Your task to perform on an android device: empty trash in the gmail app Image 0: 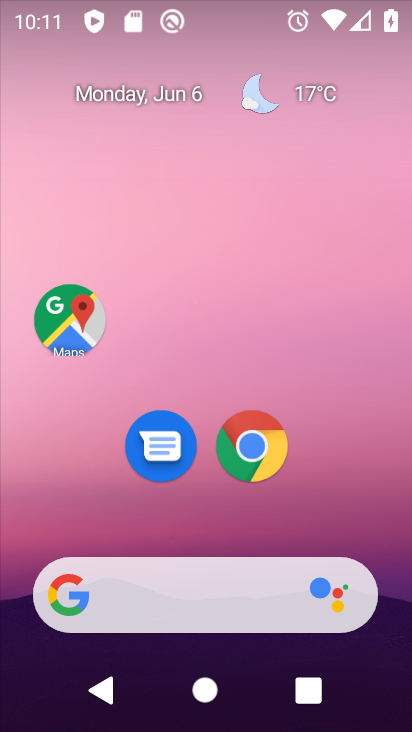
Step 0: drag from (192, 542) to (188, 44)
Your task to perform on an android device: empty trash in the gmail app Image 1: 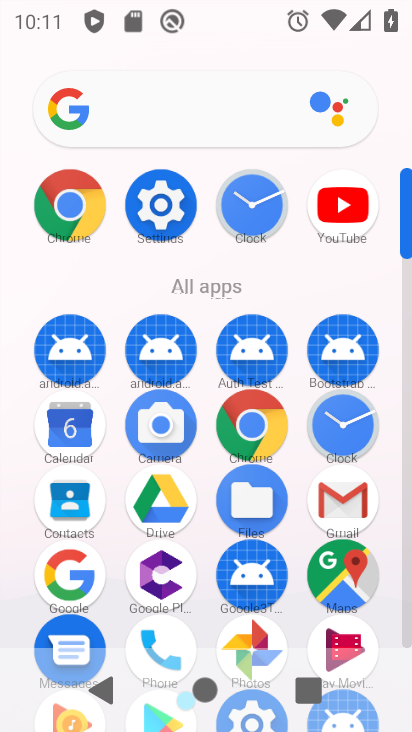
Step 1: click (346, 487)
Your task to perform on an android device: empty trash in the gmail app Image 2: 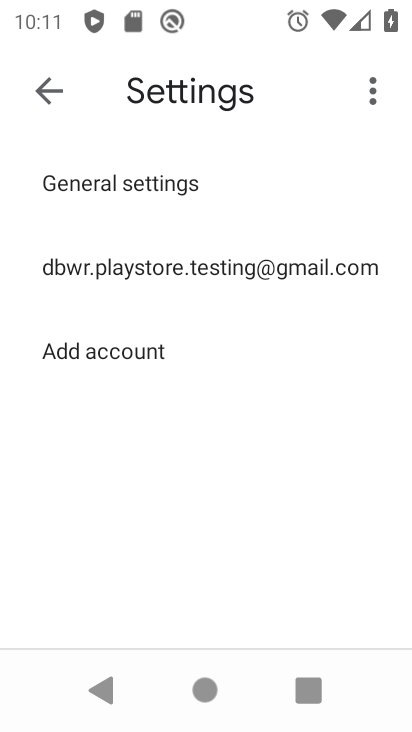
Step 2: click (57, 93)
Your task to perform on an android device: empty trash in the gmail app Image 3: 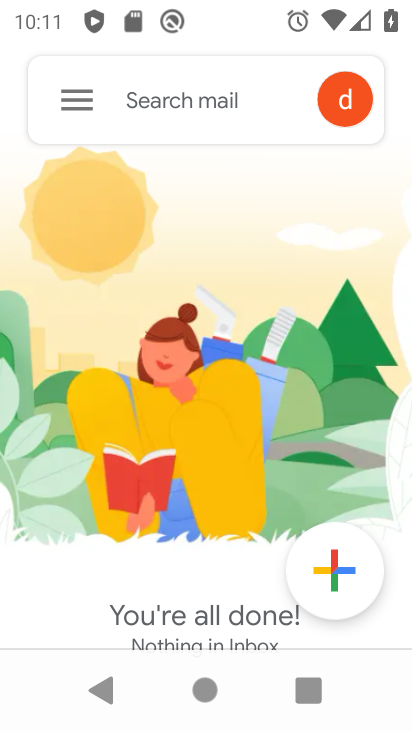
Step 3: click (58, 102)
Your task to perform on an android device: empty trash in the gmail app Image 4: 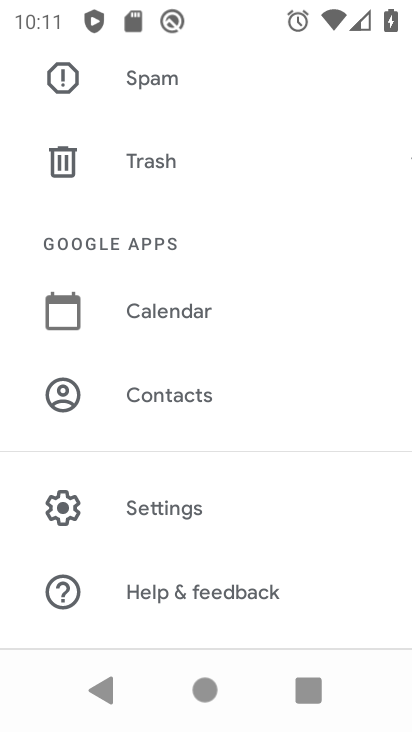
Step 4: click (169, 153)
Your task to perform on an android device: empty trash in the gmail app Image 5: 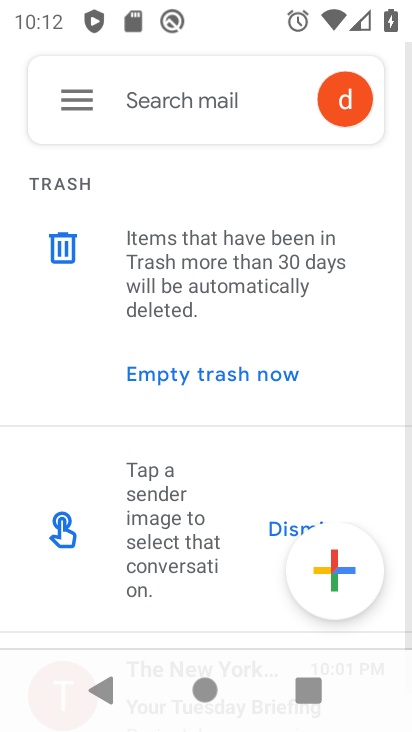
Step 5: click (216, 379)
Your task to perform on an android device: empty trash in the gmail app Image 6: 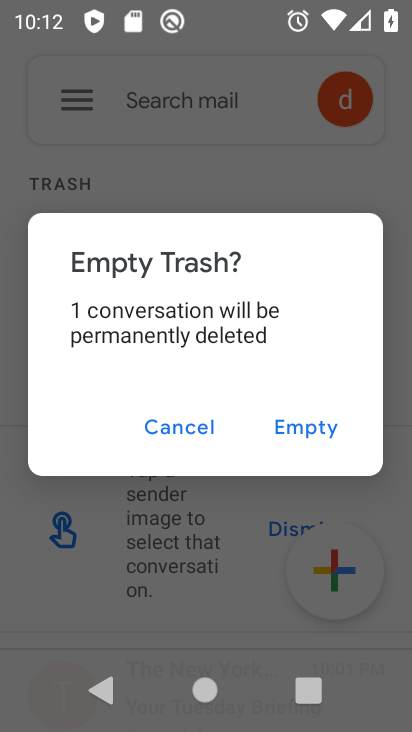
Step 6: click (302, 443)
Your task to perform on an android device: empty trash in the gmail app Image 7: 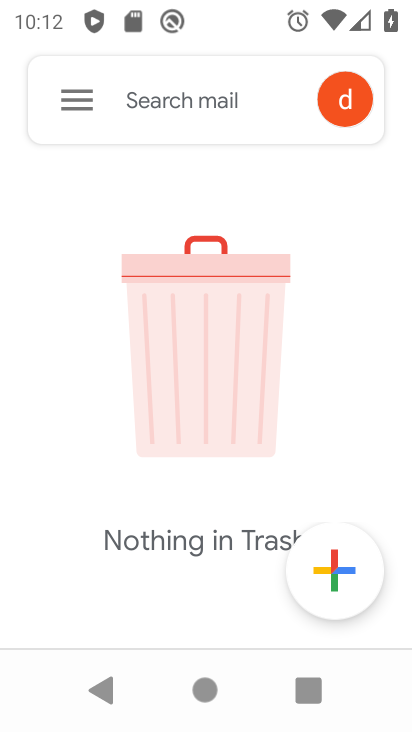
Step 7: task complete